Your task to perform on an android device: Go to wifi settings Image 0: 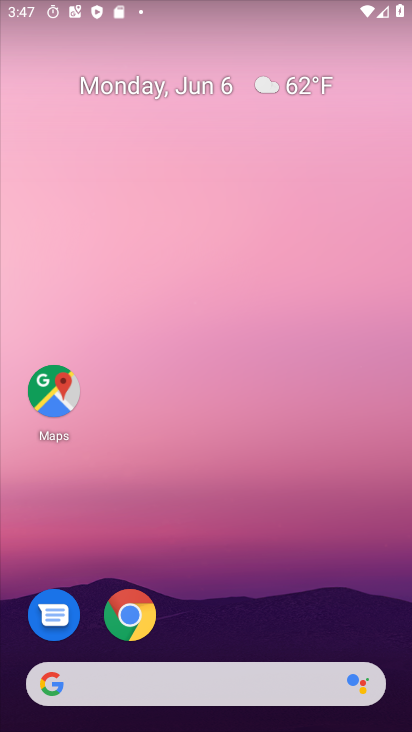
Step 0: drag from (281, 608) to (249, 22)
Your task to perform on an android device: Go to wifi settings Image 1: 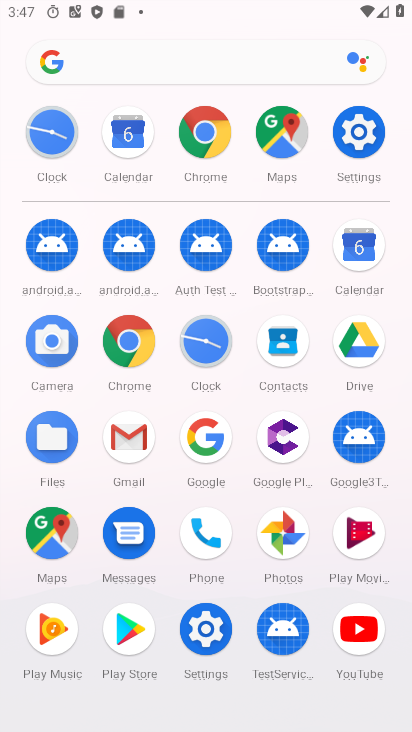
Step 1: click (371, 142)
Your task to perform on an android device: Go to wifi settings Image 2: 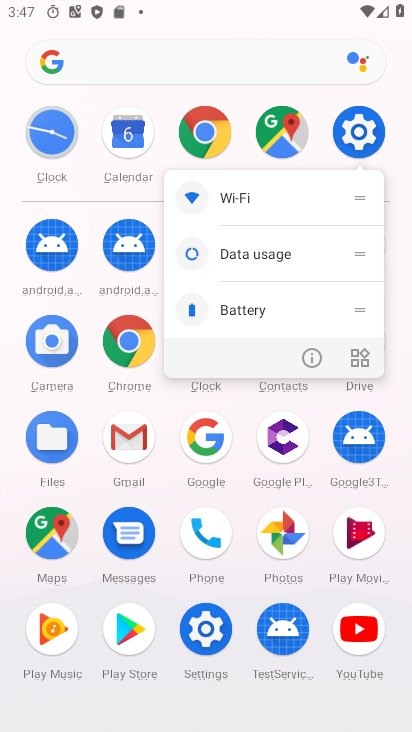
Step 2: click (248, 197)
Your task to perform on an android device: Go to wifi settings Image 3: 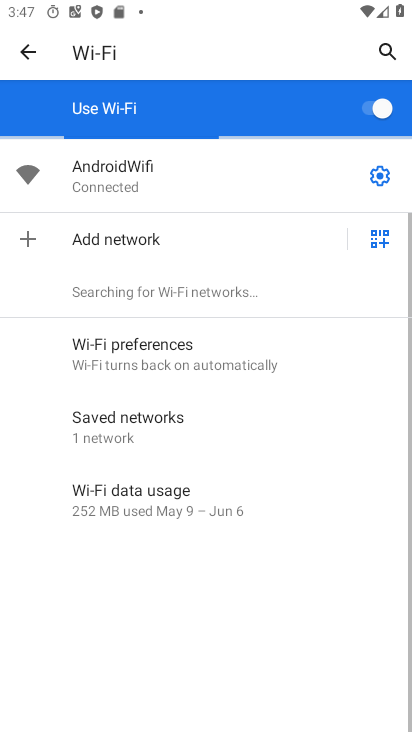
Step 3: task complete